Your task to perform on an android device: Go to CNN.com Image 0: 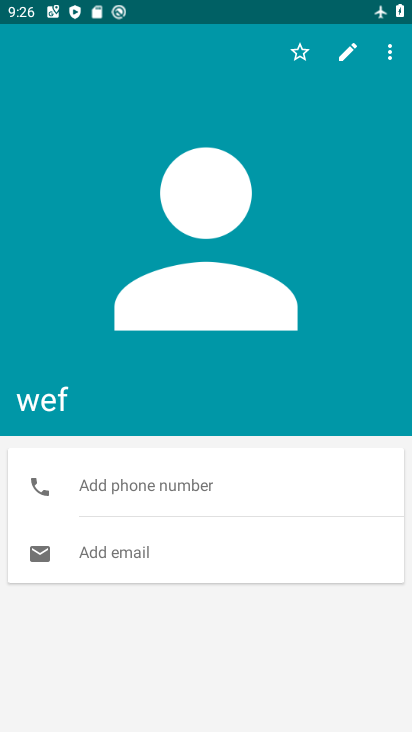
Step 0: press home button
Your task to perform on an android device: Go to CNN.com Image 1: 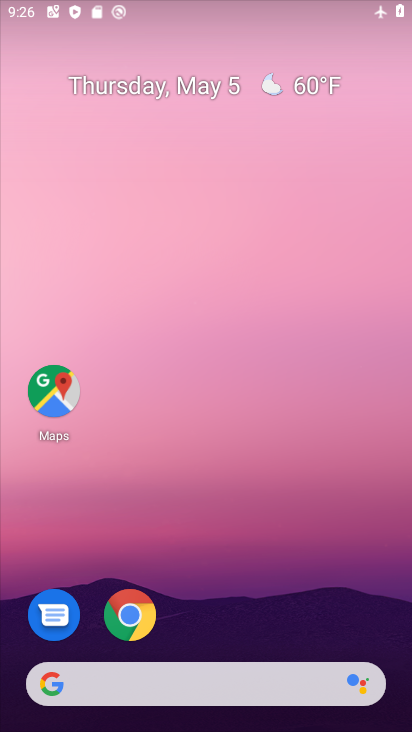
Step 1: drag from (280, 601) to (321, 126)
Your task to perform on an android device: Go to CNN.com Image 2: 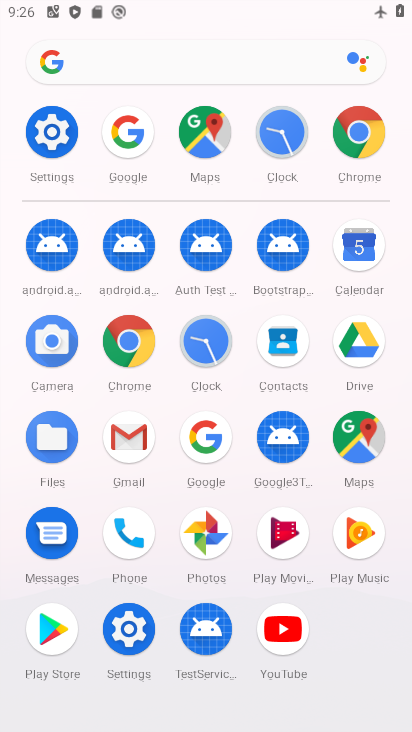
Step 2: click (204, 433)
Your task to perform on an android device: Go to CNN.com Image 3: 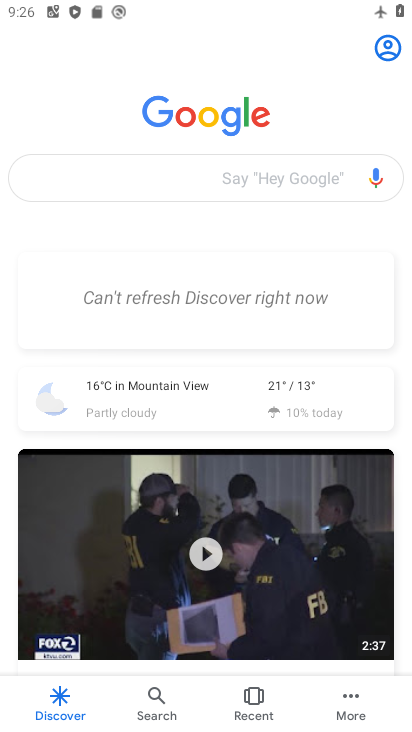
Step 3: click (175, 188)
Your task to perform on an android device: Go to CNN.com Image 4: 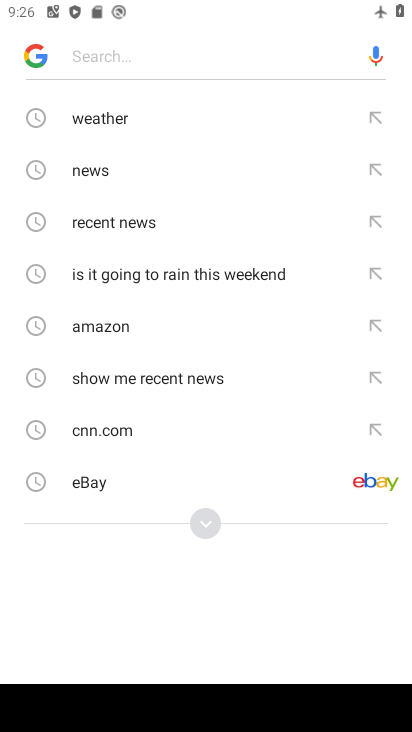
Step 4: click (115, 433)
Your task to perform on an android device: Go to CNN.com Image 5: 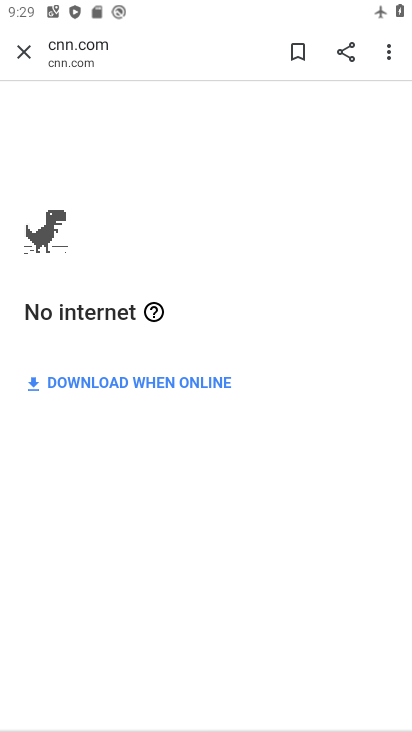
Step 5: task complete